Your task to perform on an android device: turn on javascript in the chrome app Image 0: 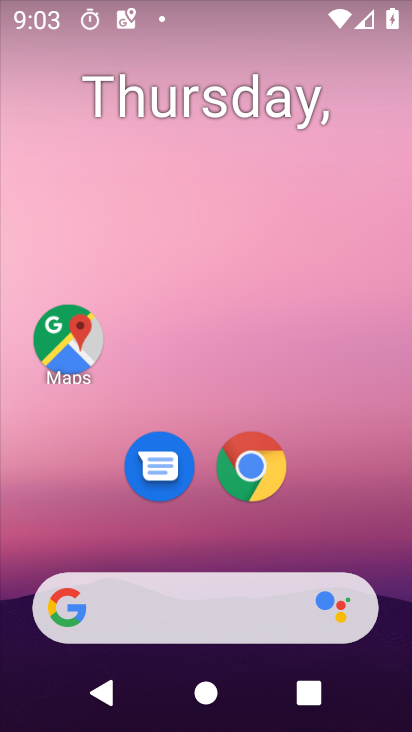
Step 0: click (264, 474)
Your task to perform on an android device: turn on javascript in the chrome app Image 1: 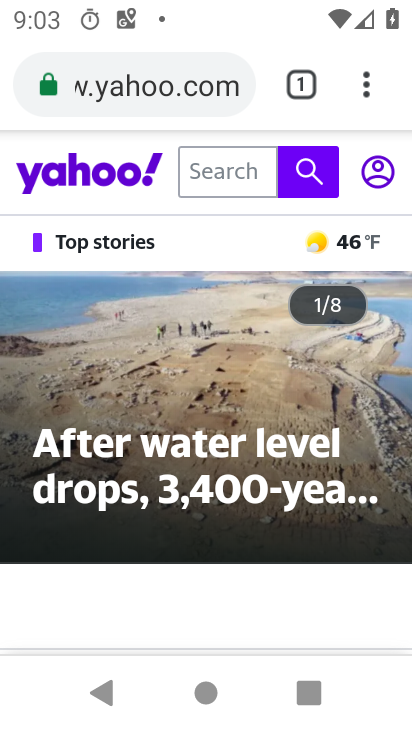
Step 1: drag from (369, 81) to (131, 520)
Your task to perform on an android device: turn on javascript in the chrome app Image 2: 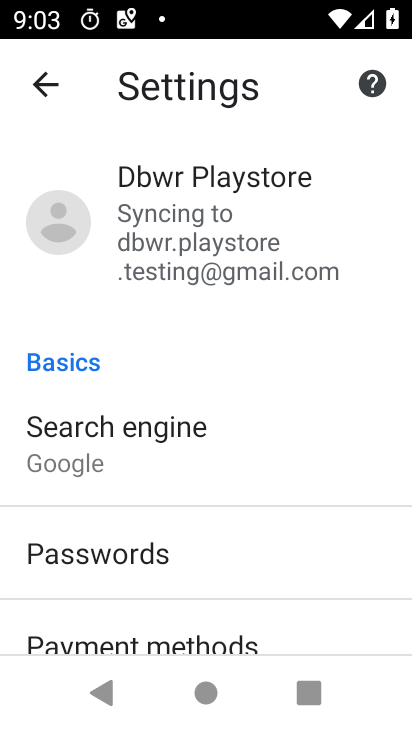
Step 2: drag from (217, 612) to (289, 237)
Your task to perform on an android device: turn on javascript in the chrome app Image 3: 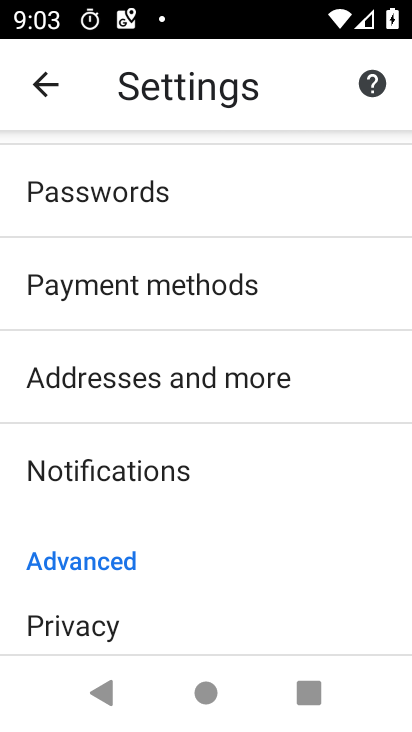
Step 3: drag from (274, 609) to (303, 161)
Your task to perform on an android device: turn on javascript in the chrome app Image 4: 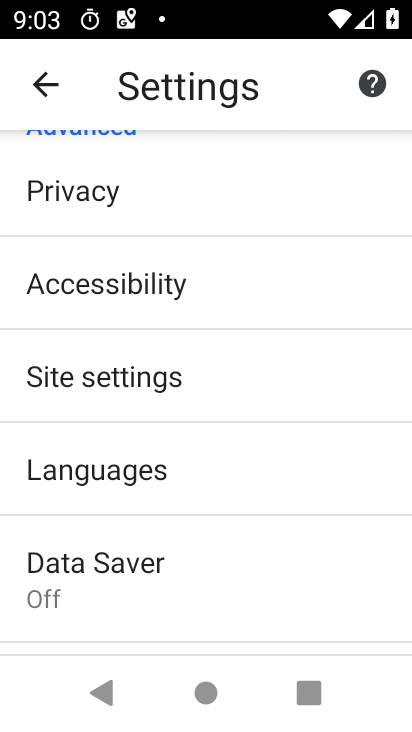
Step 4: click (93, 388)
Your task to perform on an android device: turn on javascript in the chrome app Image 5: 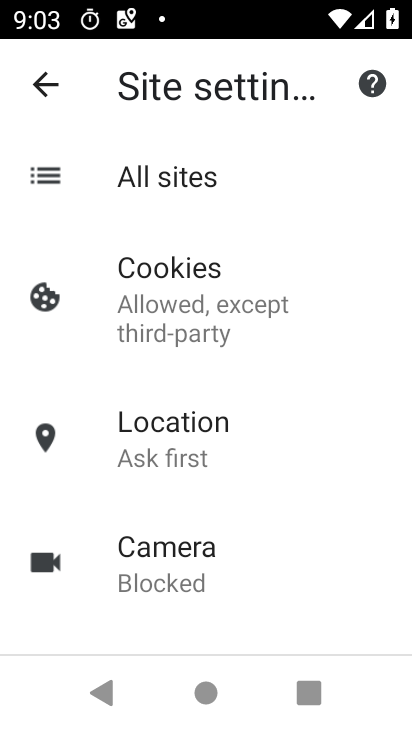
Step 5: drag from (244, 602) to (310, 235)
Your task to perform on an android device: turn on javascript in the chrome app Image 6: 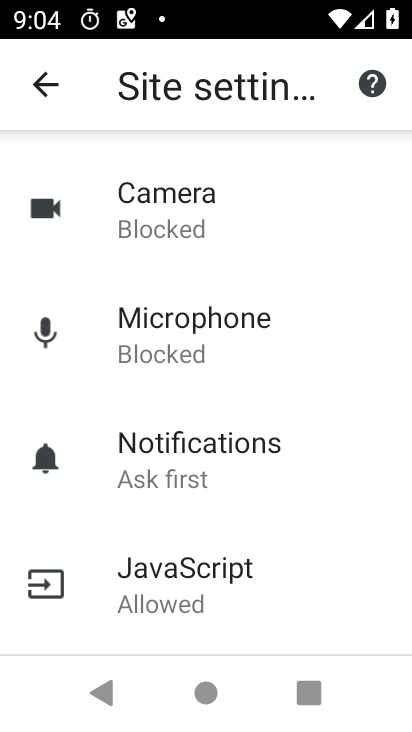
Step 6: click (162, 571)
Your task to perform on an android device: turn on javascript in the chrome app Image 7: 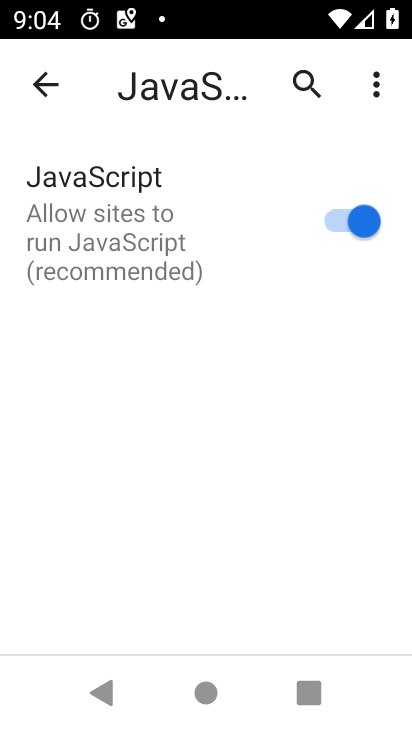
Step 7: task complete